Your task to perform on an android device: Open Chrome and go to settings Image 0: 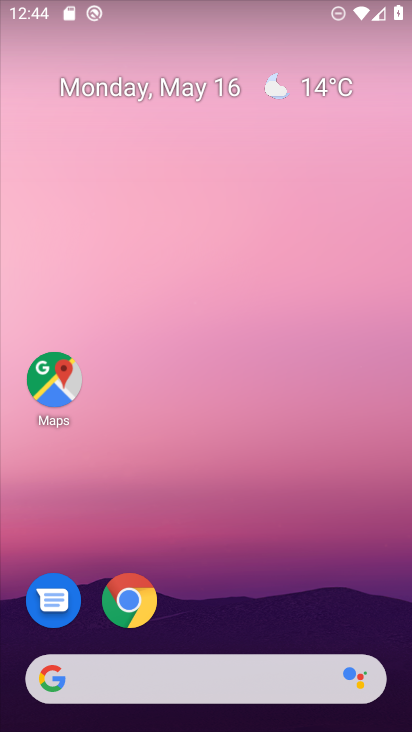
Step 0: press home button
Your task to perform on an android device: Open Chrome and go to settings Image 1: 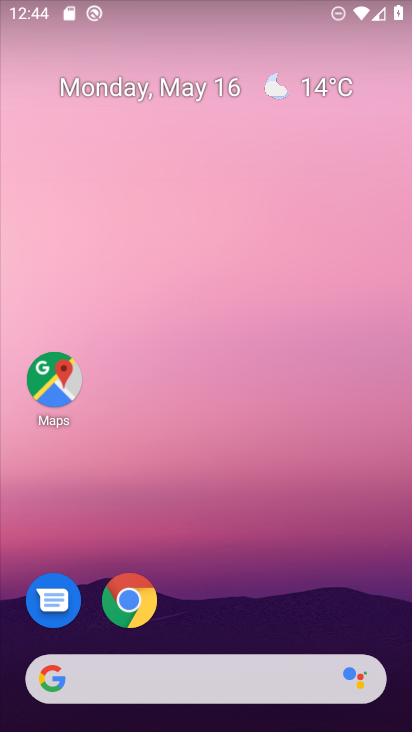
Step 1: drag from (218, 626) to (220, 120)
Your task to perform on an android device: Open Chrome and go to settings Image 2: 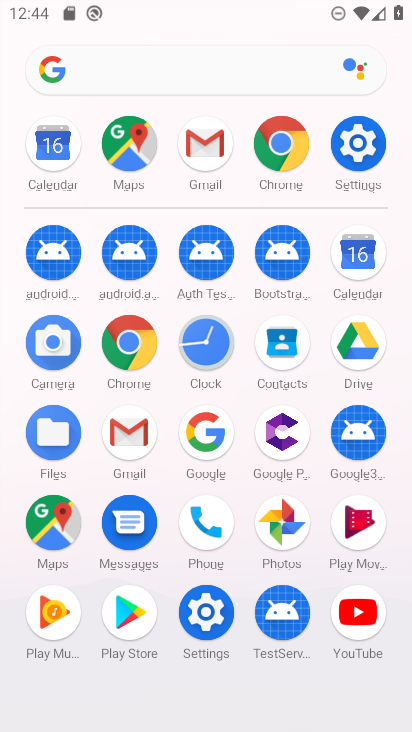
Step 2: click (278, 137)
Your task to perform on an android device: Open Chrome and go to settings Image 3: 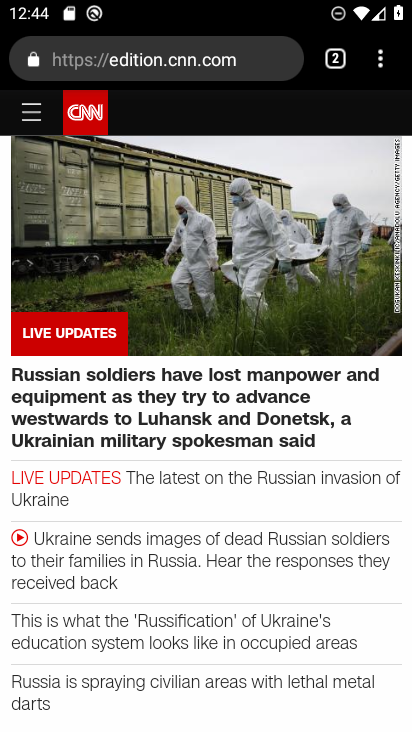
Step 3: click (376, 56)
Your task to perform on an android device: Open Chrome and go to settings Image 4: 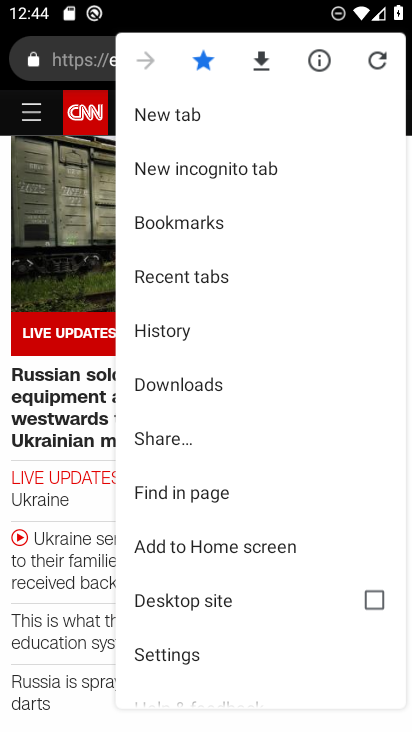
Step 4: click (206, 643)
Your task to perform on an android device: Open Chrome and go to settings Image 5: 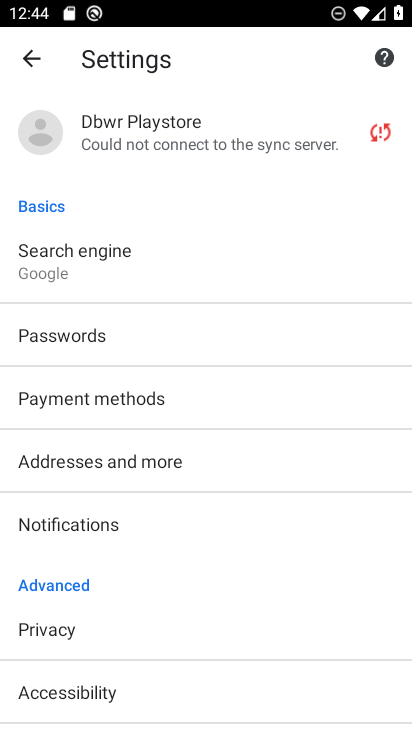
Step 5: task complete